Your task to perform on an android device: check the backup settings in the google photos Image 0: 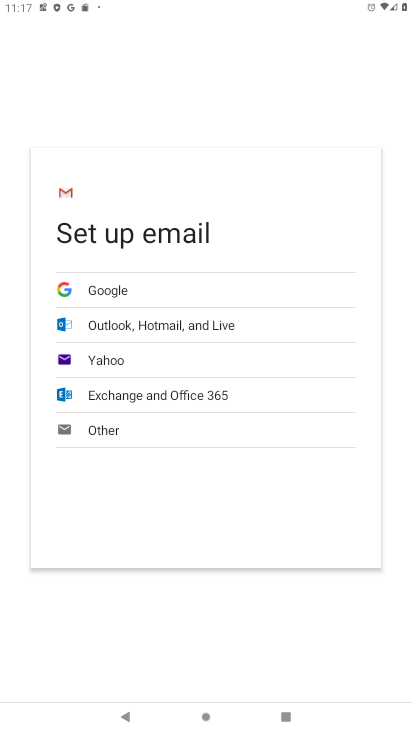
Step 0: press home button
Your task to perform on an android device: check the backup settings in the google photos Image 1: 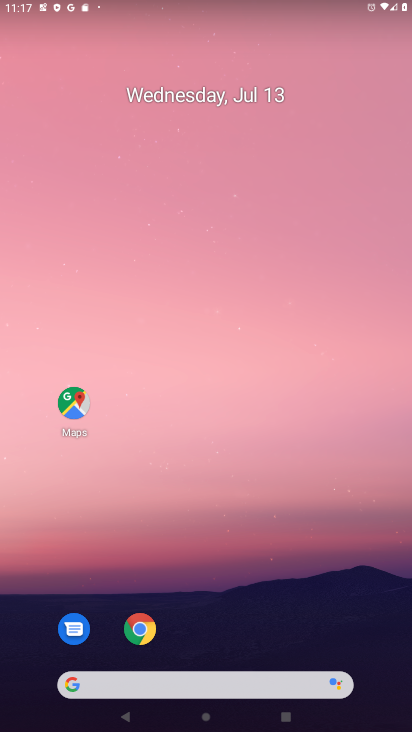
Step 1: drag from (280, 653) to (325, 213)
Your task to perform on an android device: check the backup settings in the google photos Image 2: 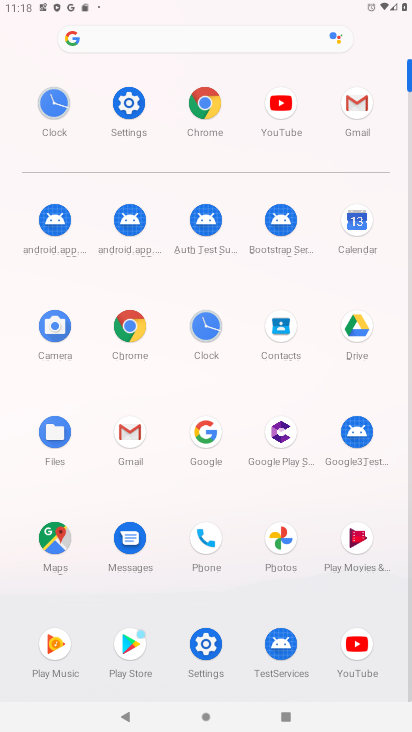
Step 2: click (271, 533)
Your task to perform on an android device: check the backup settings in the google photos Image 3: 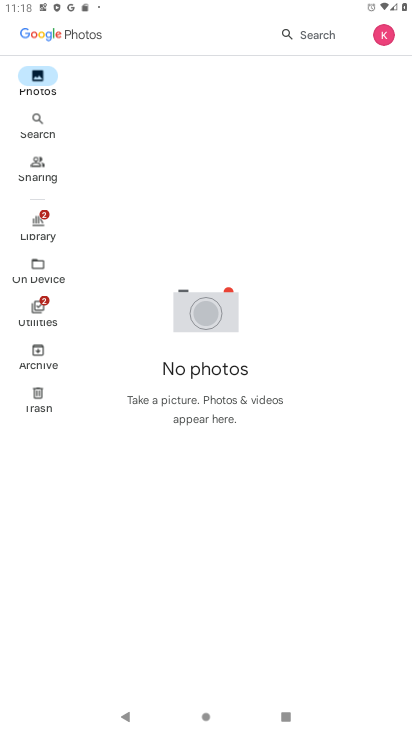
Step 3: click (371, 41)
Your task to perform on an android device: check the backup settings in the google photos Image 4: 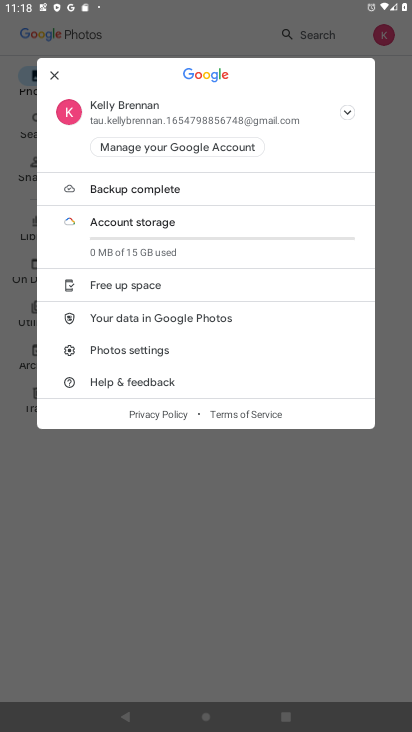
Step 4: click (215, 354)
Your task to perform on an android device: check the backup settings in the google photos Image 5: 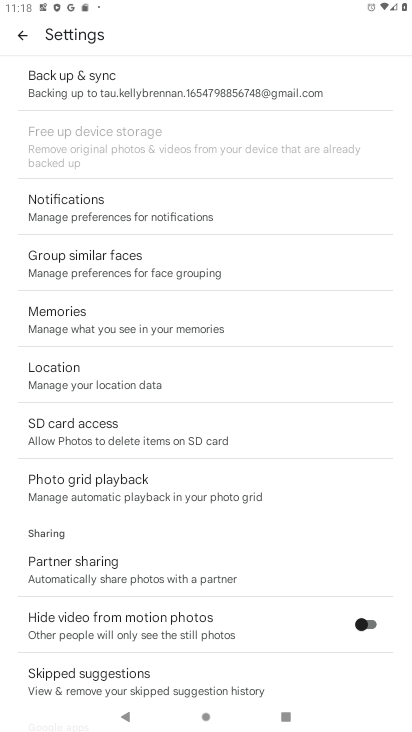
Step 5: click (178, 75)
Your task to perform on an android device: check the backup settings in the google photos Image 6: 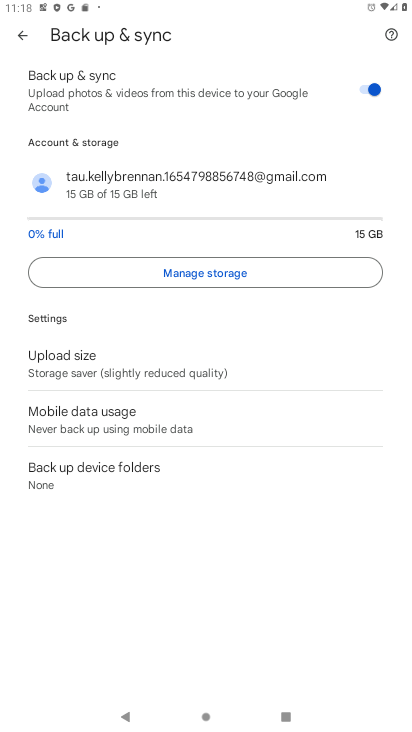
Step 6: click (355, 82)
Your task to perform on an android device: check the backup settings in the google photos Image 7: 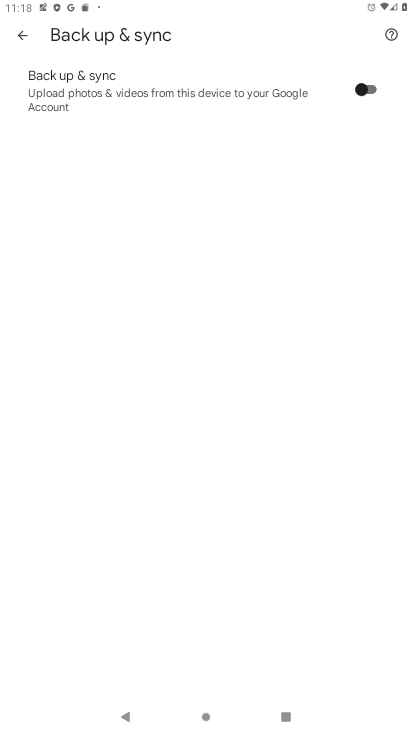
Step 7: task complete